Your task to perform on an android device: Go to Amazon Image 0: 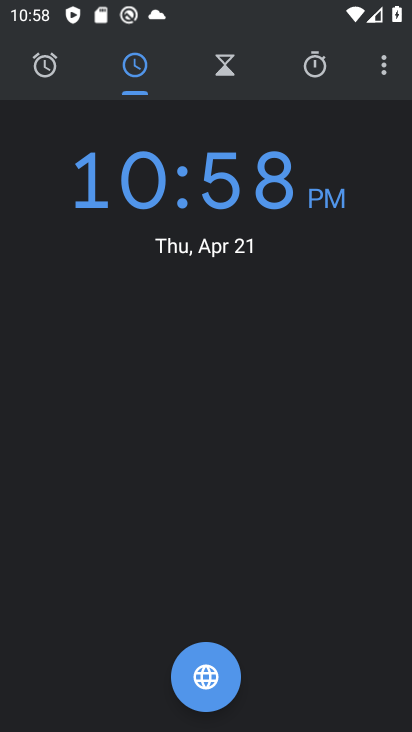
Step 0: press back button
Your task to perform on an android device: Go to Amazon Image 1: 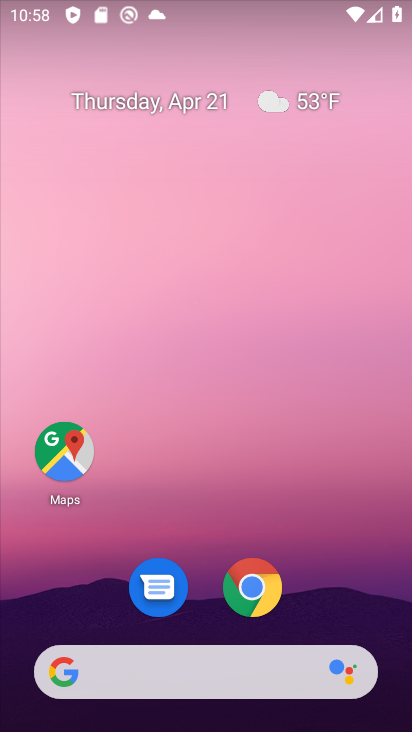
Step 1: click (248, 585)
Your task to perform on an android device: Go to Amazon Image 2: 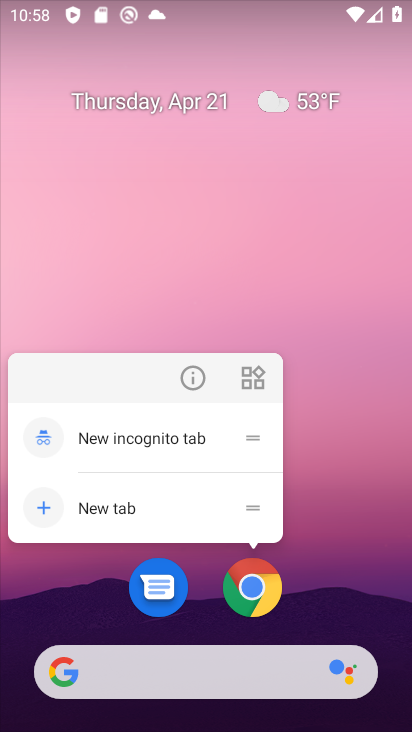
Step 2: click (257, 582)
Your task to perform on an android device: Go to Amazon Image 3: 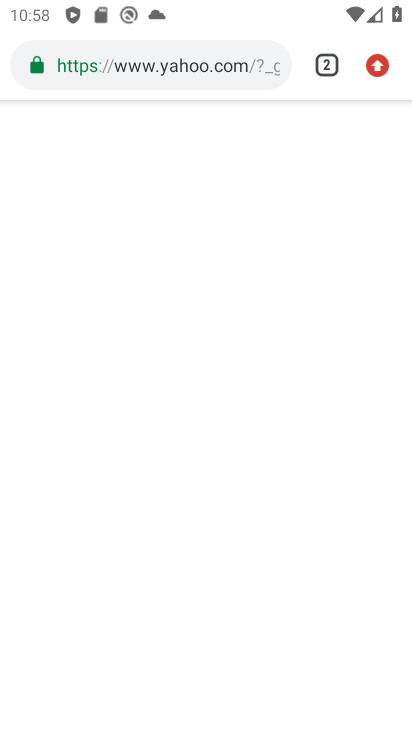
Step 3: click (325, 68)
Your task to perform on an android device: Go to Amazon Image 4: 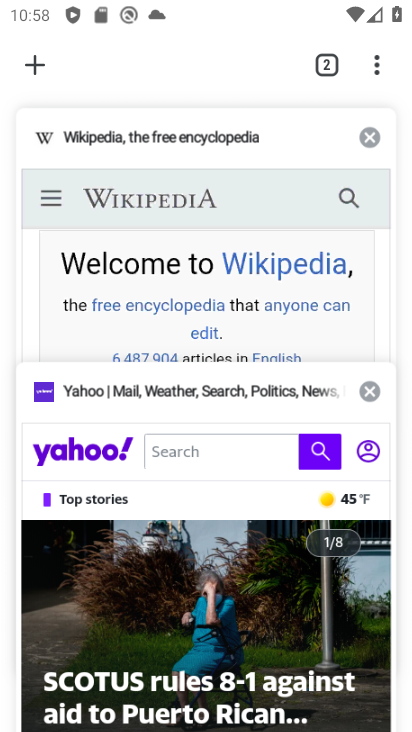
Step 4: click (38, 62)
Your task to perform on an android device: Go to Amazon Image 5: 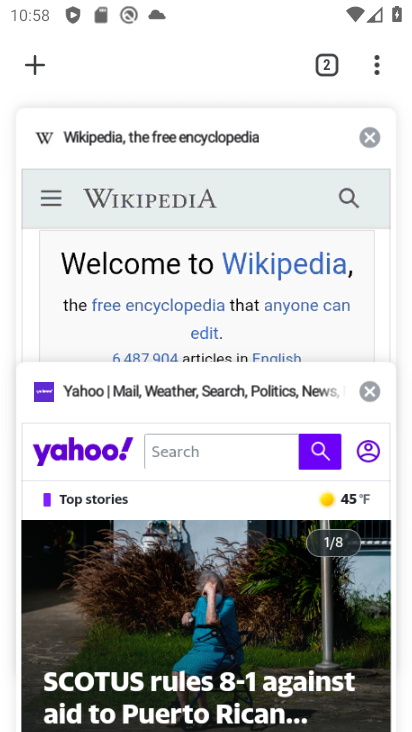
Step 5: click (31, 68)
Your task to perform on an android device: Go to Amazon Image 6: 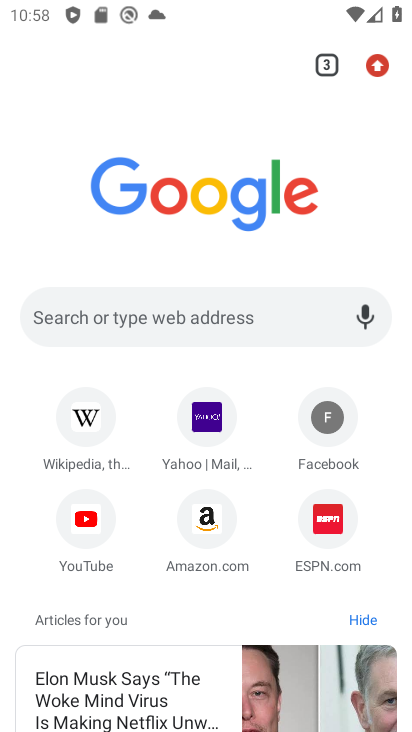
Step 6: click (213, 527)
Your task to perform on an android device: Go to Amazon Image 7: 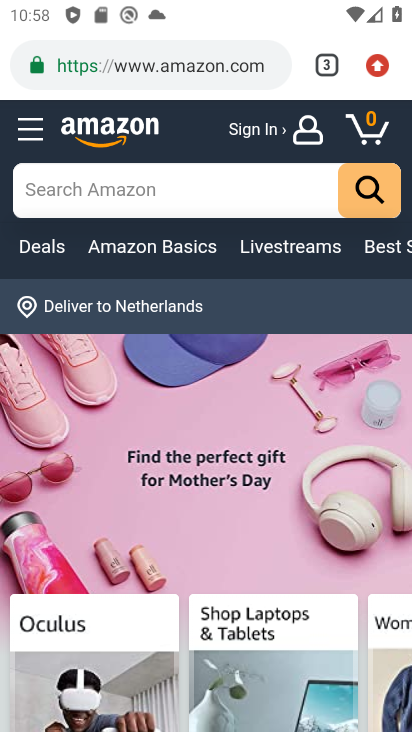
Step 7: task complete